Your task to perform on an android device: open app "Adobe Express: Graphic Design" Image 0: 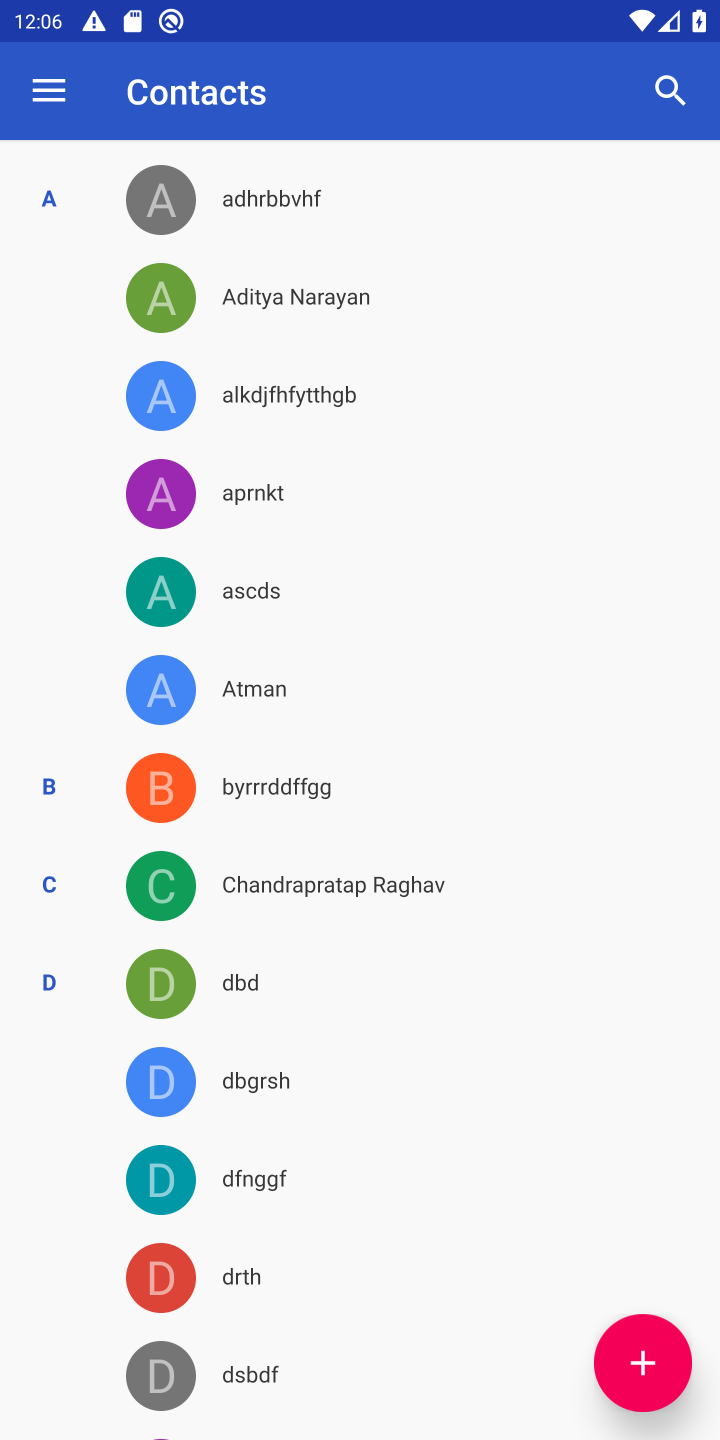
Step 0: press back button
Your task to perform on an android device: open app "Adobe Express: Graphic Design" Image 1: 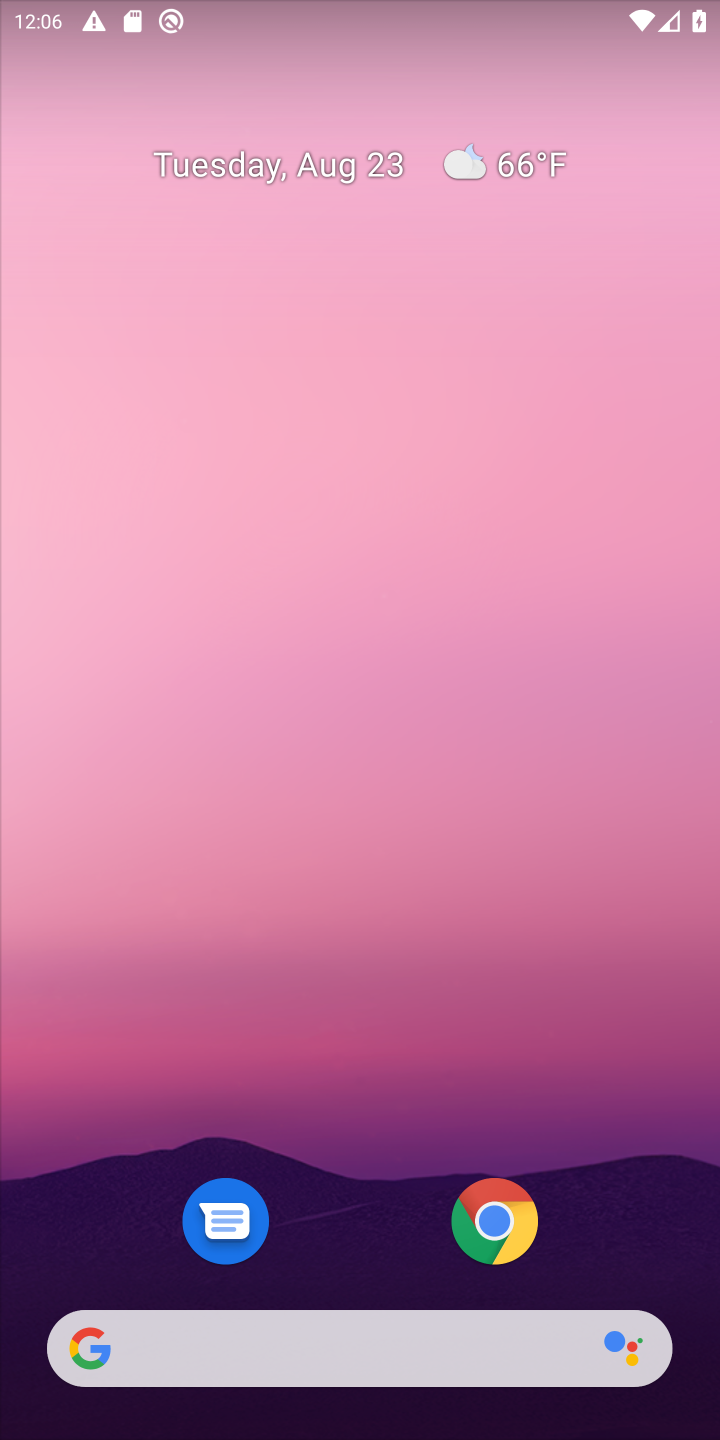
Step 1: drag from (312, 1206) to (373, 3)
Your task to perform on an android device: open app "Adobe Express: Graphic Design" Image 2: 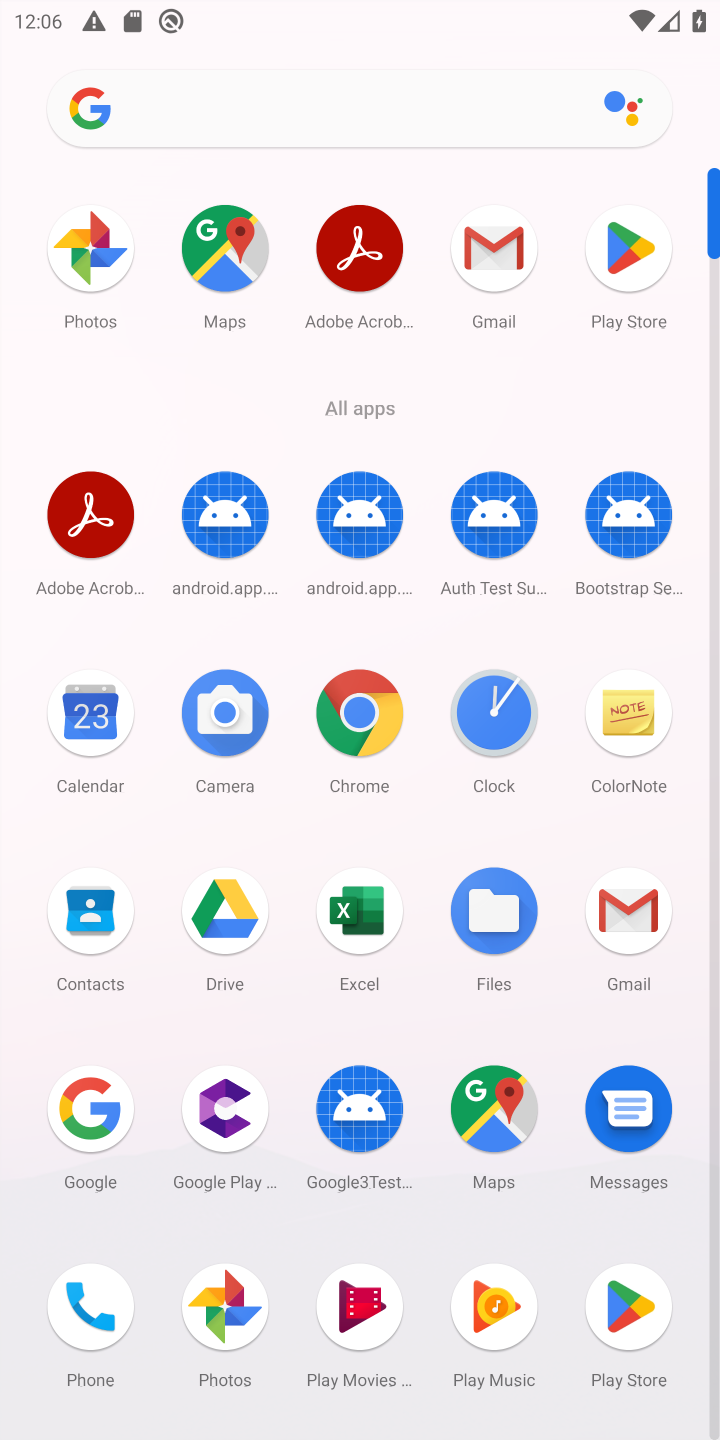
Step 2: click (642, 266)
Your task to perform on an android device: open app "Adobe Express: Graphic Design" Image 3: 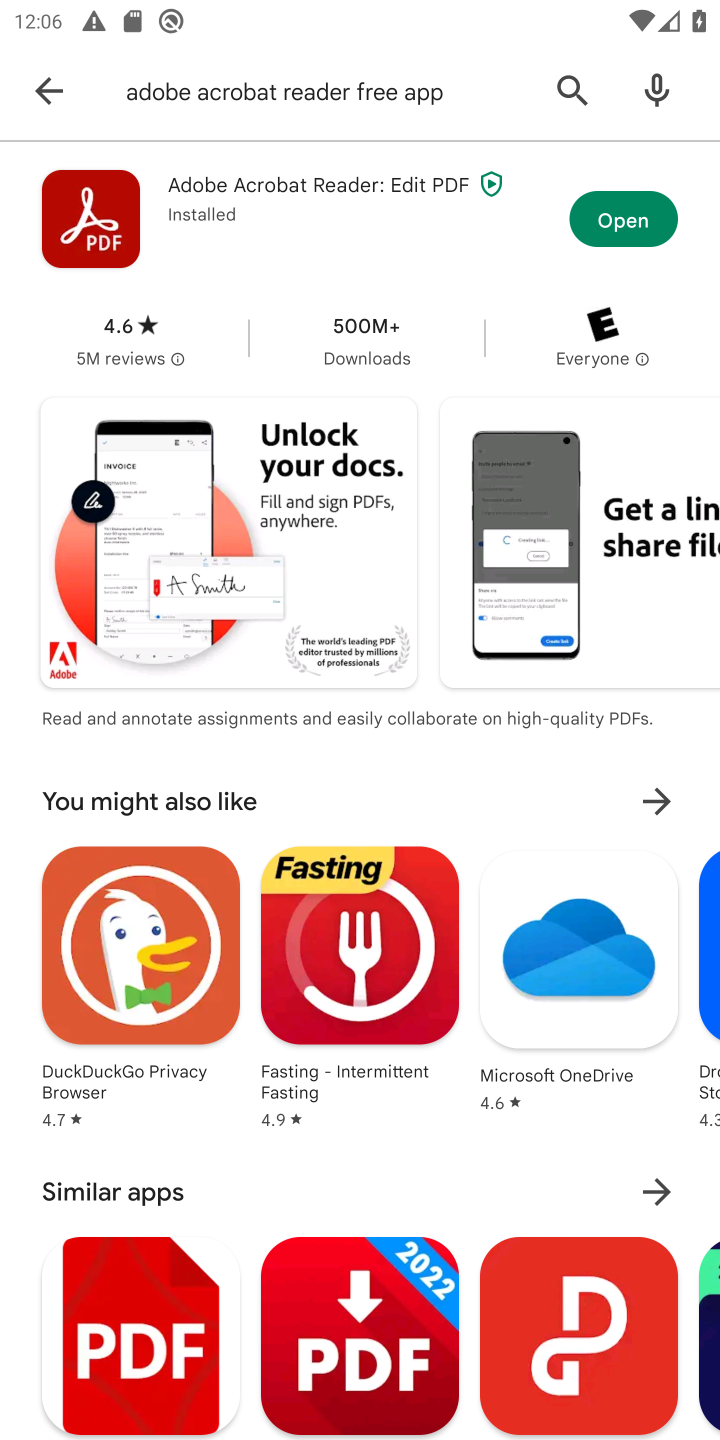
Step 3: click (560, 92)
Your task to perform on an android device: open app "Adobe Express: Graphic Design" Image 4: 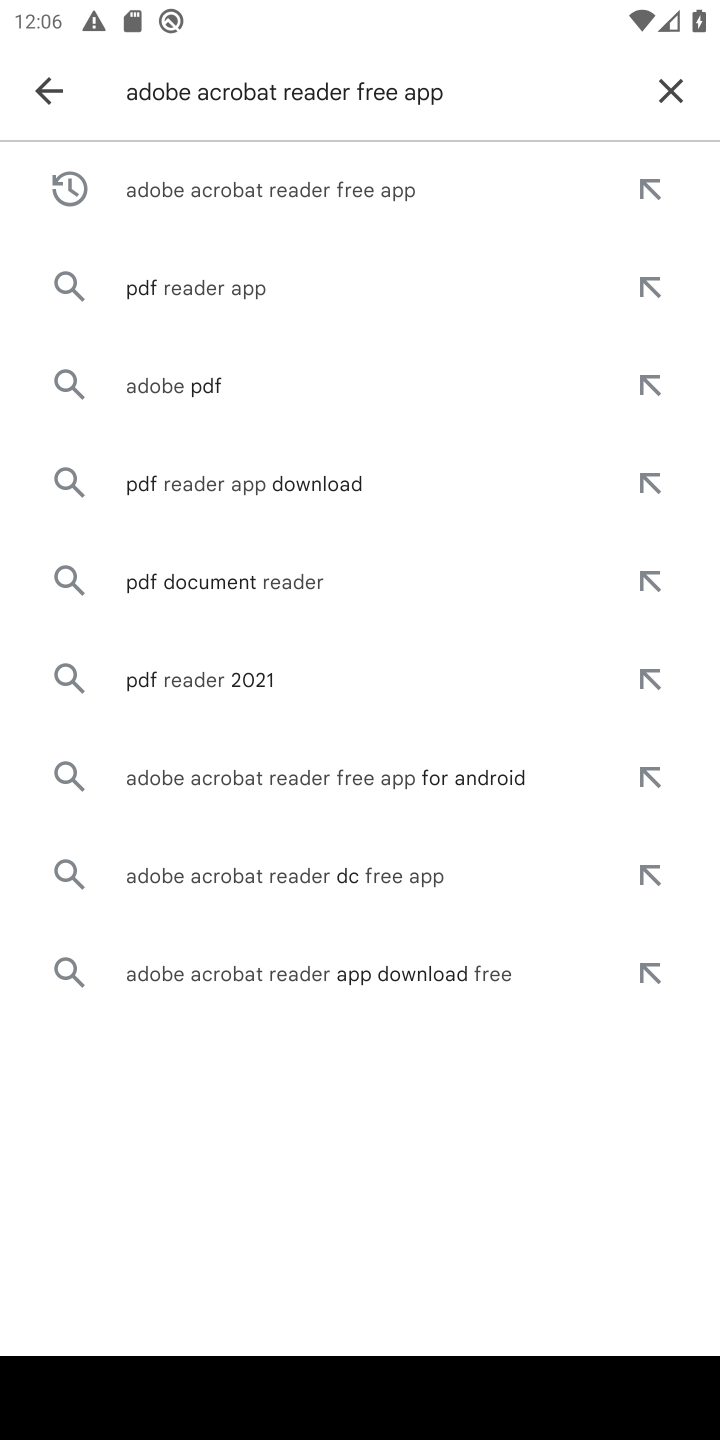
Step 4: click (670, 78)
Your task to perform on an android device: open app "Adobe Express: Graphic Design" Image 5: 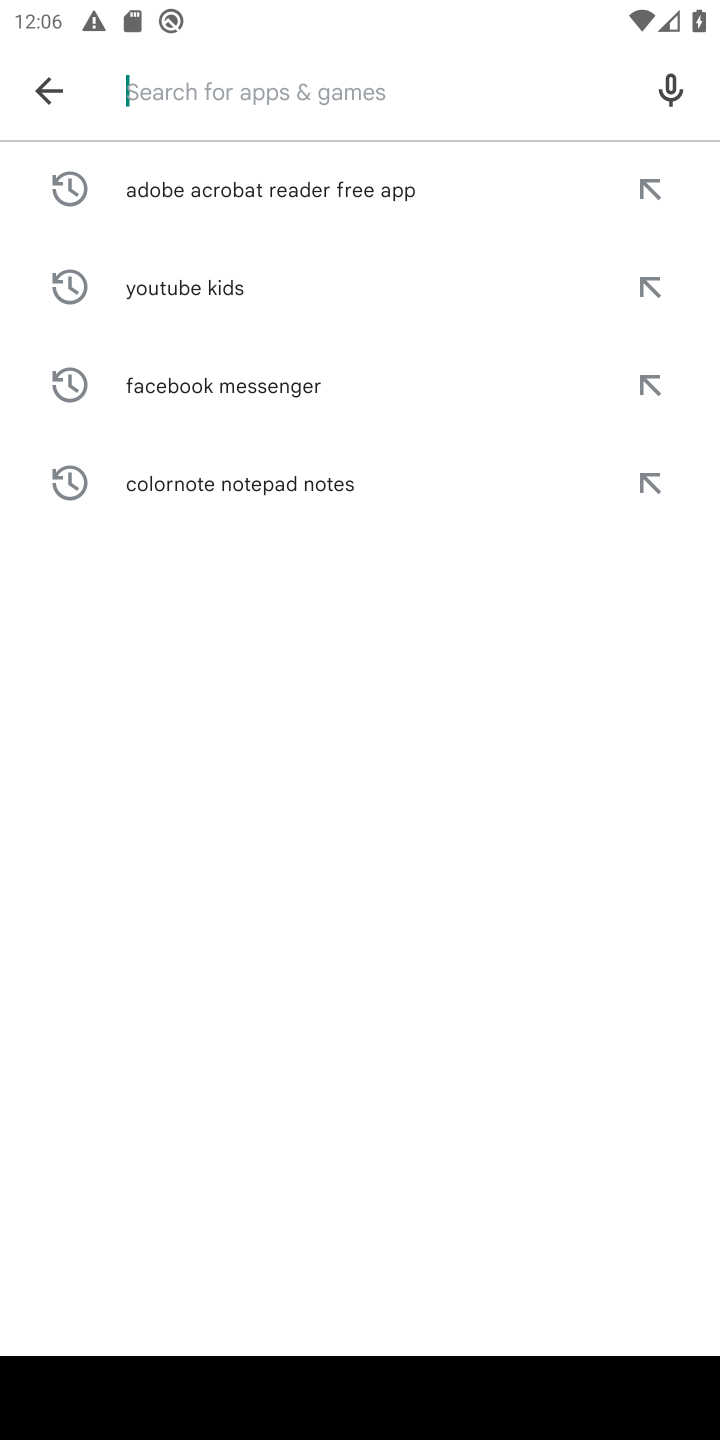
Step 5: click (225, 66)
Your task to perform on an android device: open app "Adobe Express: Graphic Design" Image 6: 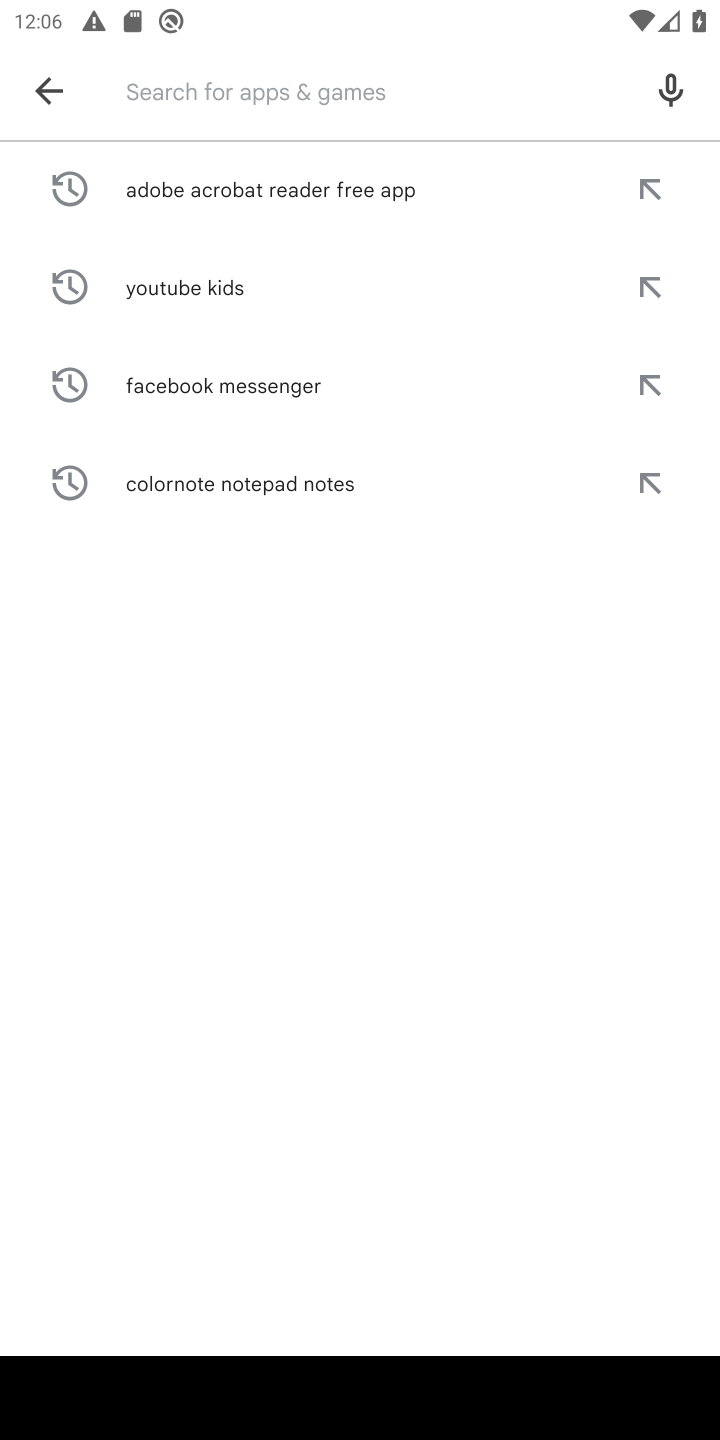
Step 6: type "Adobe Express: Graphic Design"
Your task to perform on an android device: open app "Adobe Express: Graphic Design" Image 7: 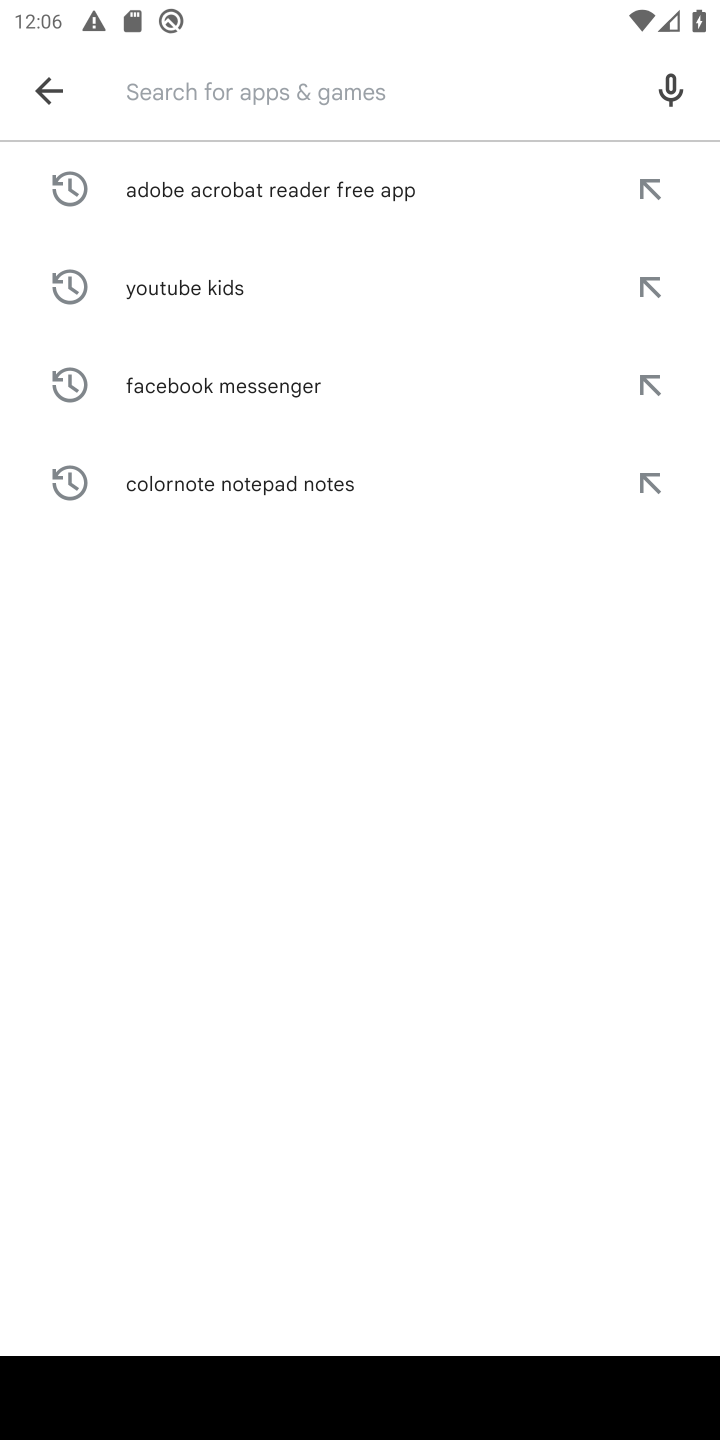
Step 7: click (389, 972)
Your task to perform on an android device: open app "Adobe Express: Graphic Design" Image 8: 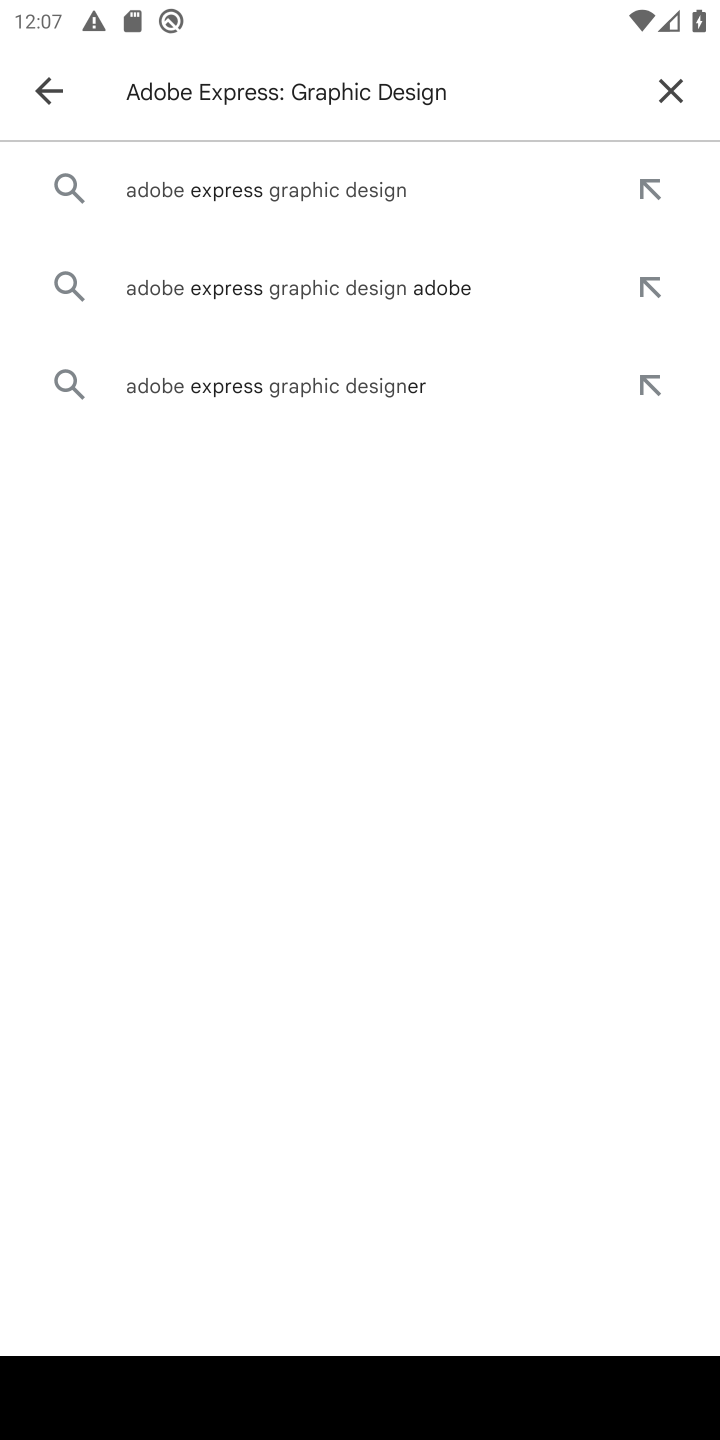
Step 8: click (284, 189)
Your task to perform on an android device: open app "Adobe Express: Graphic Design" Image 9: 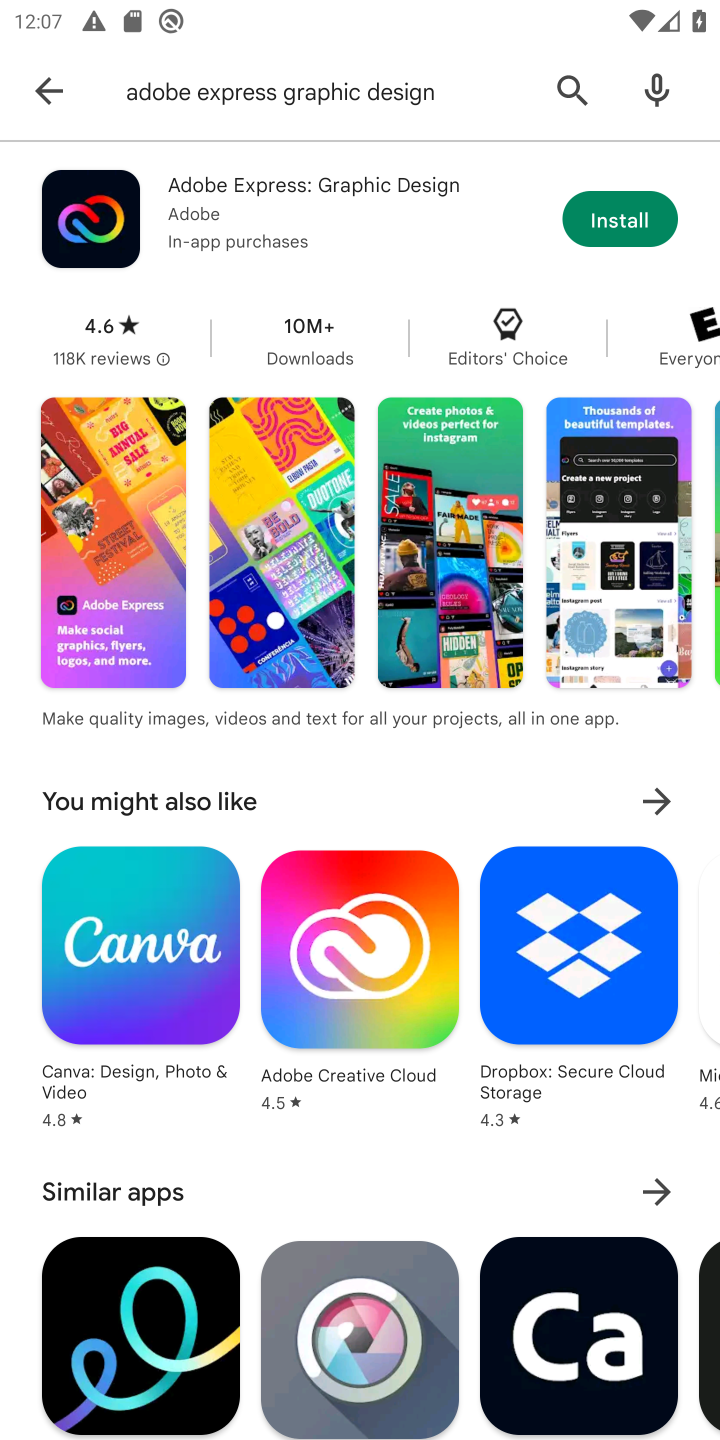
Step 9: task complete